Your task to perform on an android device: Go to settings Image 0: 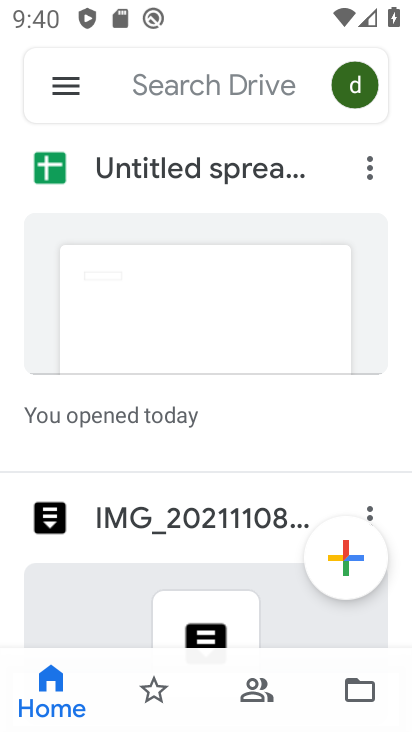
Step 0: press back button
Your task to perform on an android device: Go to settings Image 1: 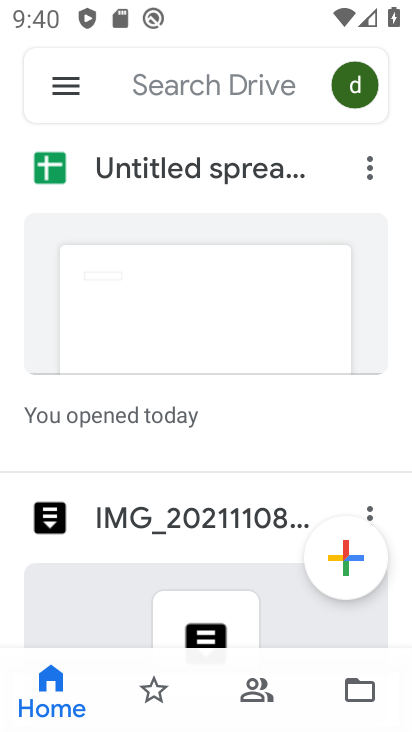
Step 1: press back button
Your task to perform on an android device: Go to settings Image 2: 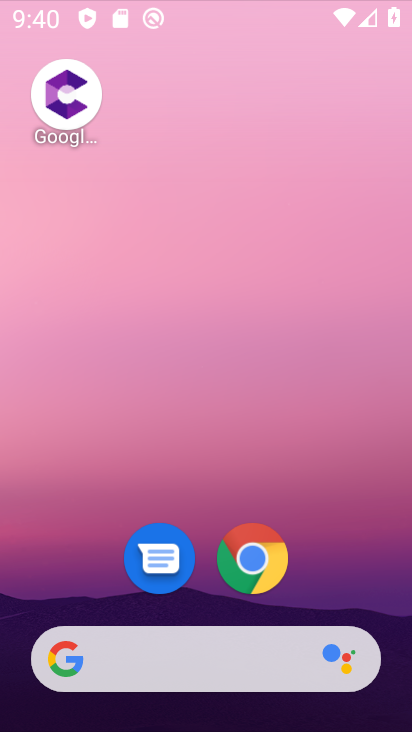
Step 2: press back button
Your task to perform on an android device: Go to settings Image 3: 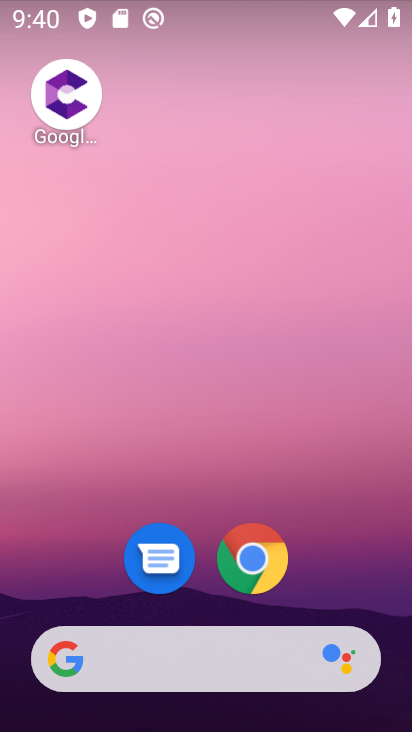
Step 3: drag from (350, 505) to (165, 2)
Your task to perform on an android device: Go to settings Image 4: 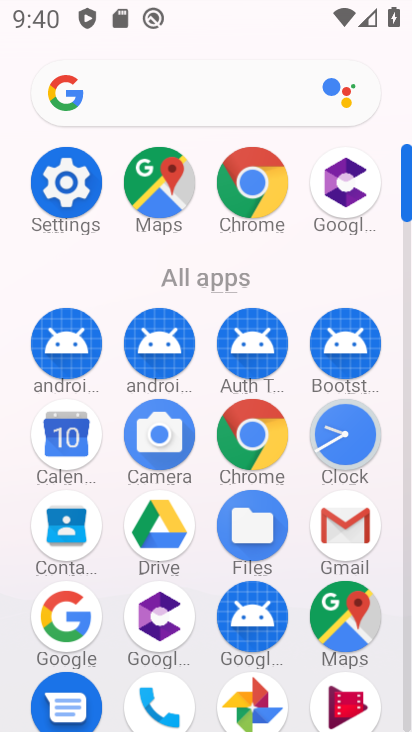
Step 4: click (70, 189)
Your task to perform on an android device: Go to settings Image 5: 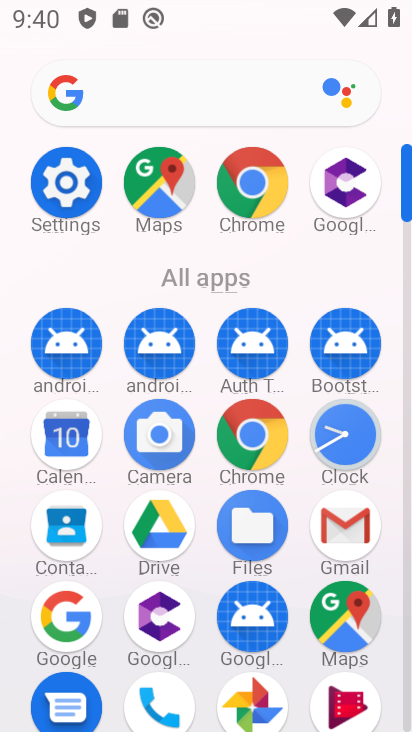
Step 5: click (70, 189)
Your task to perform on an android device: Go to settings Image 6: 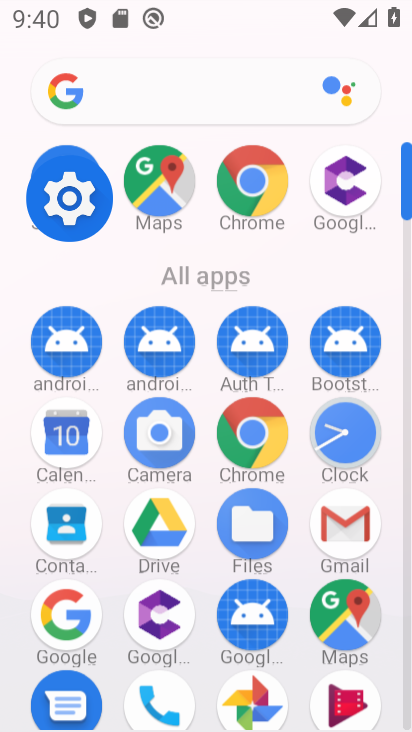
Step 6: click (70, 189)
Your task to perform on an android device: Go to settings Image 7: 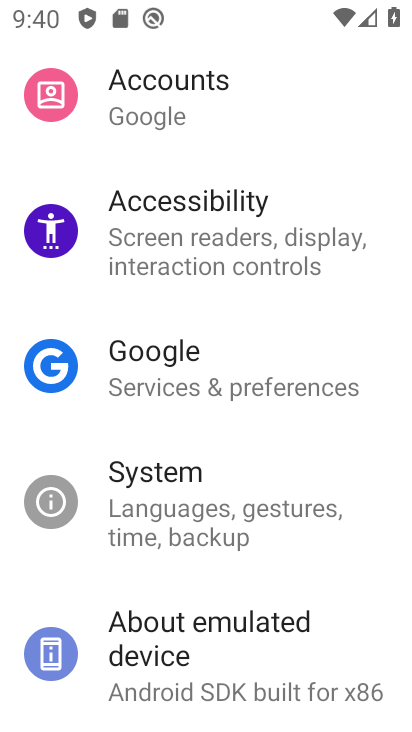
Step 7: click (69, 190)
Your task to perform on an android device: Go to settings Image 8: 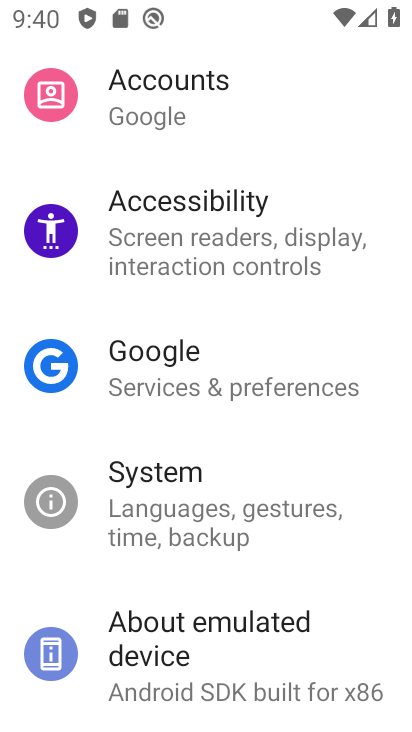
Step 8: click (71, 192)
Your task to perform on an android device: Go to settings Image 9: 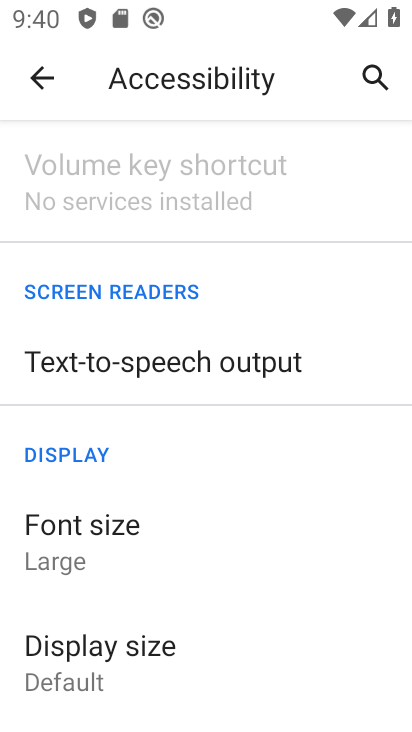
Step 9: drag from (34, 89) to (47, 7)
Your task to perform on an android device: Go to settings Image 10: 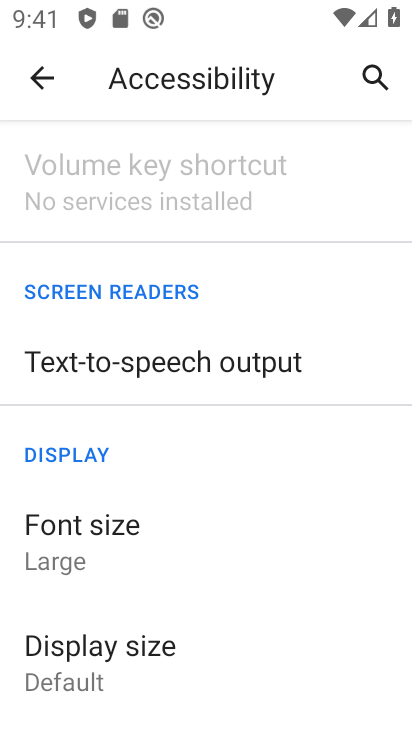
Step 10: click (38, 82)
Your task to perform on an android device: Go to settings Image 11: 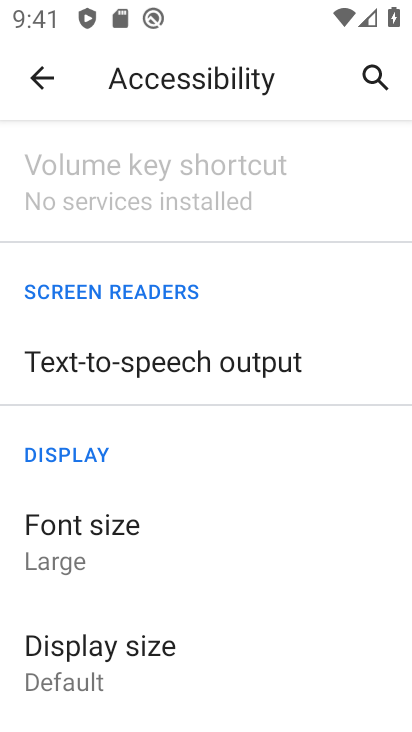
Step 11: click (38, 82)
Your task to perform on an android device: Go to settings Image 12: 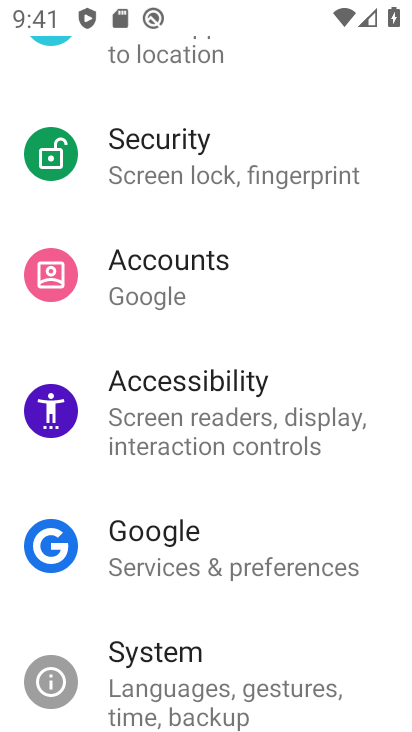
Step 12: task complete